Your task to perform on an android device: Go to settings Image 0: 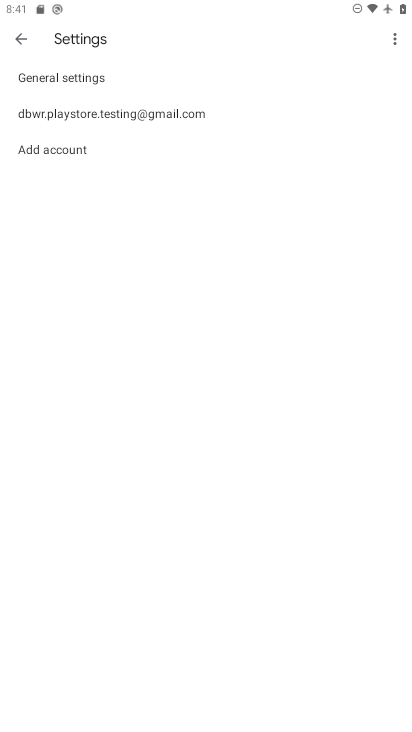
Step 0: press home button
Your task to perform on an android device: Go to settings Image 1: 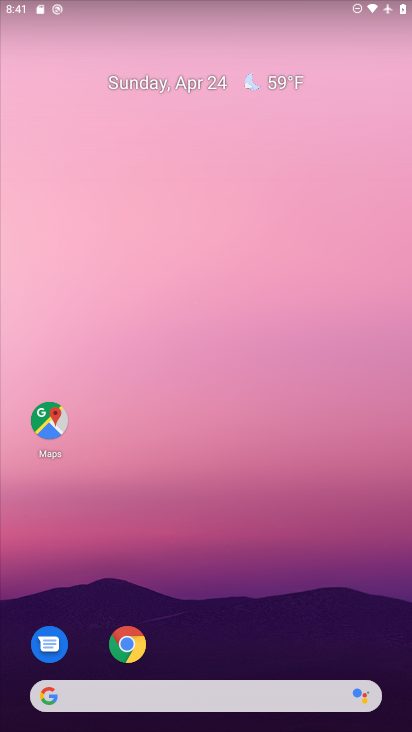
Step 1: drag from (213, 658) to (212, 126)
Your task to perform on an android device: Go to settings Image 2: 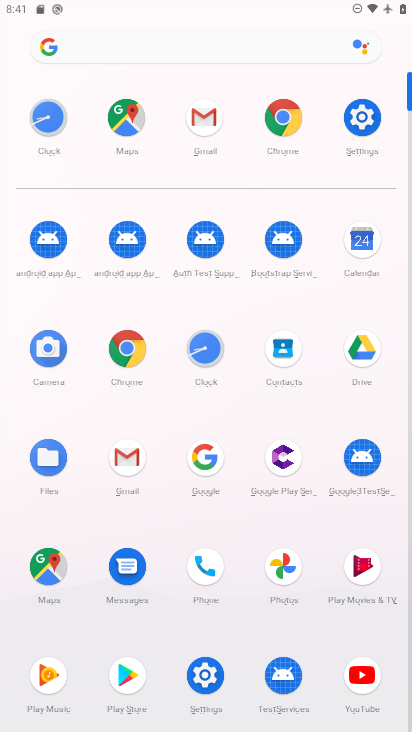
Step 2: click (358, 112)
Your task to perform on an android device: Go to settings Image 3: 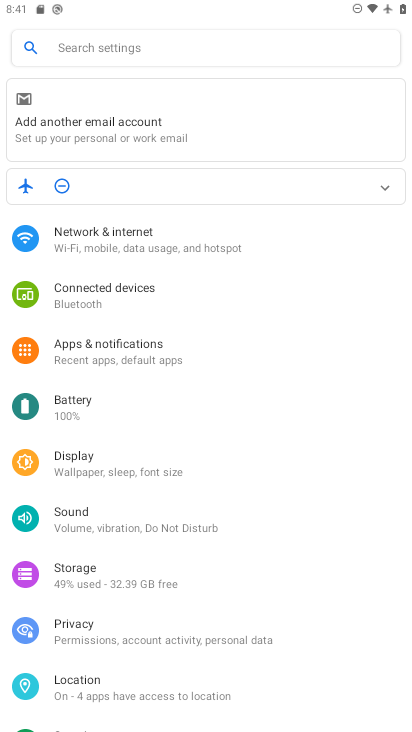
Step 3: task complete